Your task to perform on an android device: Open sound settings Image 0: 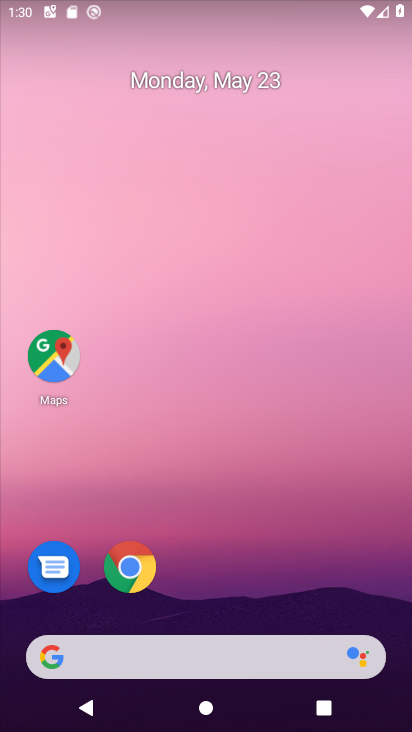
Step 0: drag from (288, 610) to (313, 251)
Your task to perform on an android device: Open sound settings Image 1: 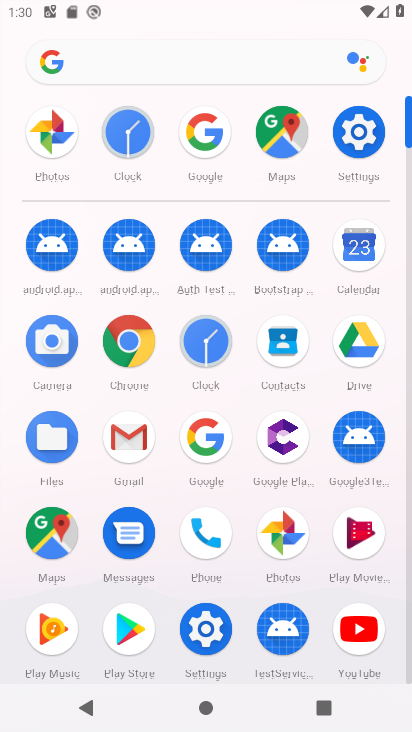
Step 1: click (347, 158)
Your task to perform on an android device: Open sound settings Image 2: 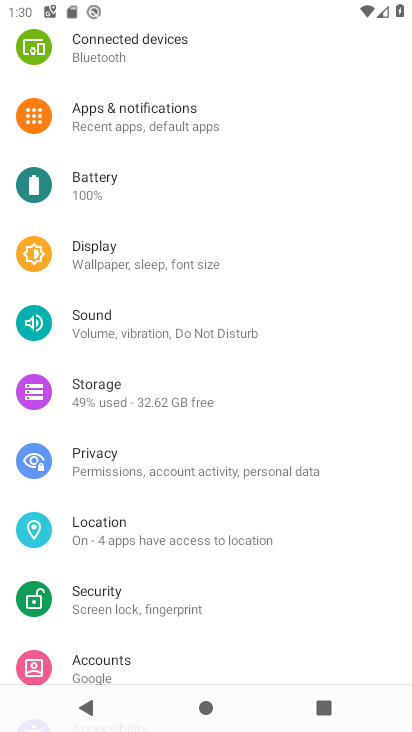
Step 2: click (150, 334)
Your task to perform on an android device: Open sound settings Image 3: 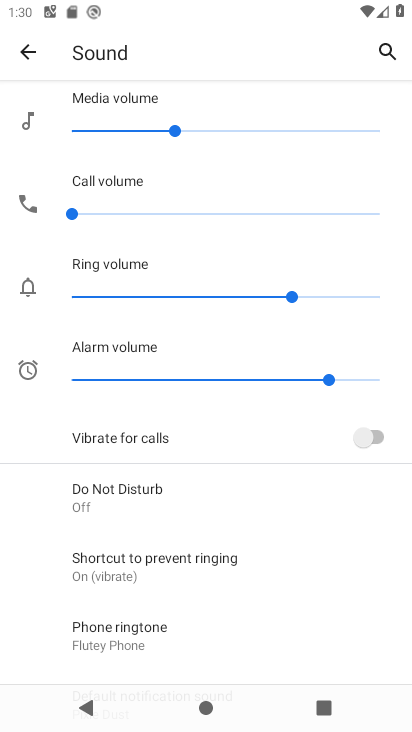
Step 3: task complete